Your task to perform on an android device: open chrome privacy settings Image 0: 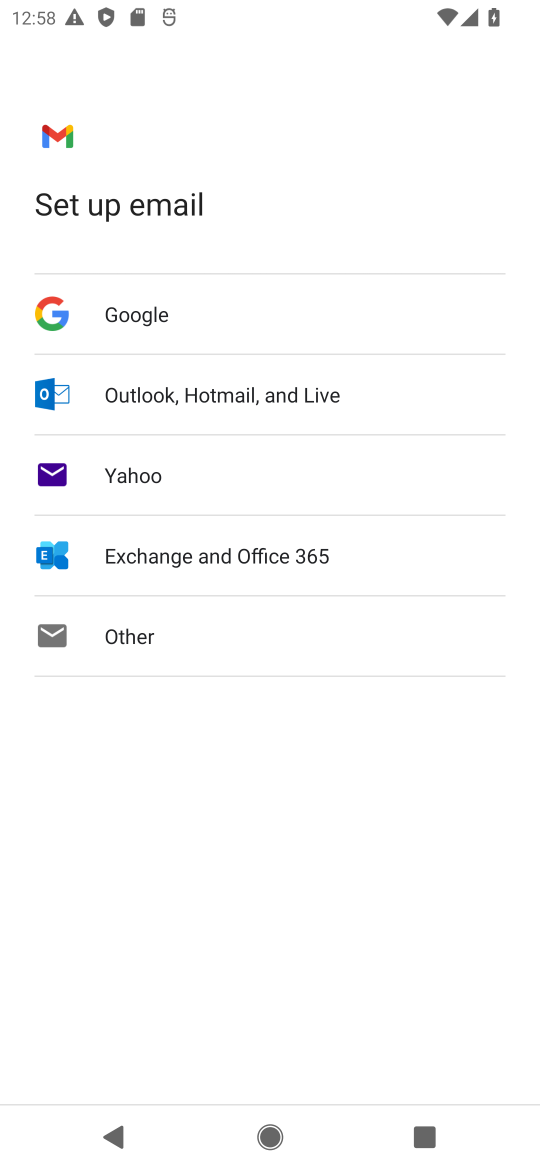
Step 0: press back button
Your task to perform on an android device: open chrome privacy settings Image 1: 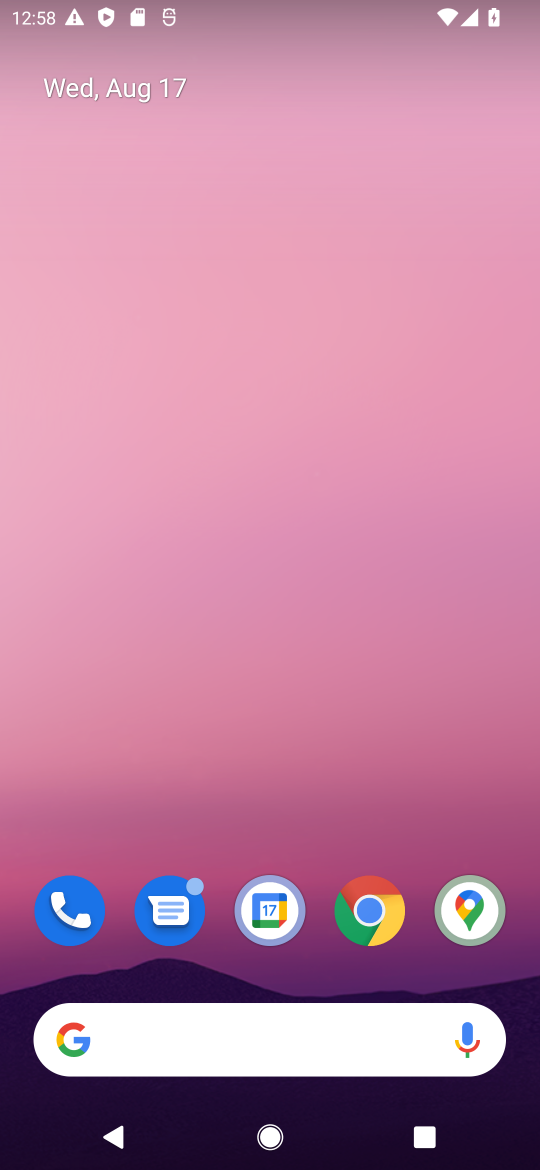
Step 1: click (374, 915)
Your task to perform on an android device: open chrome privacy settings Image 2: 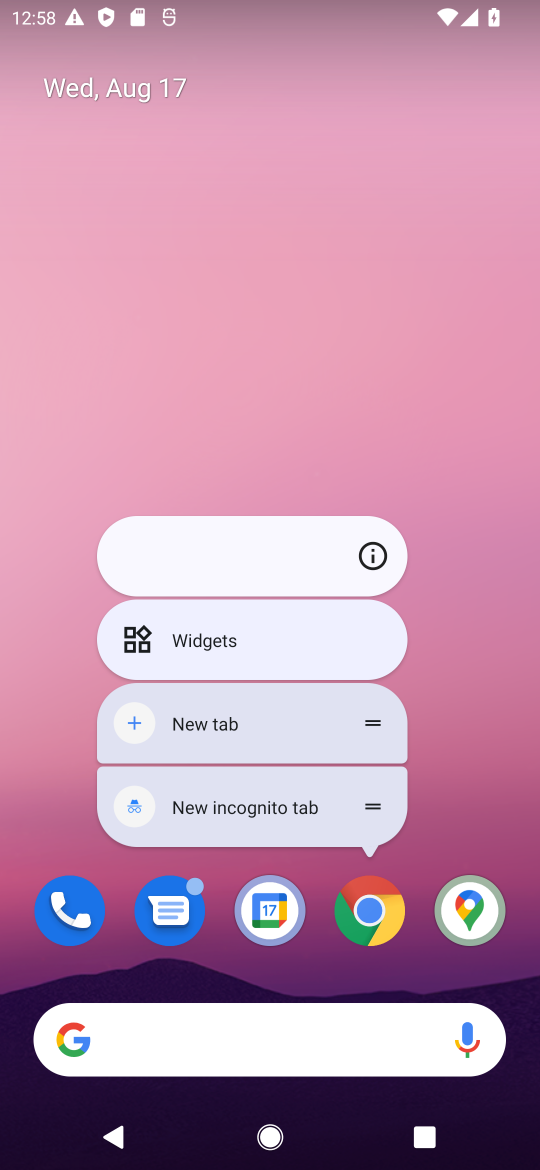
Step 2: click (374, 915)
Your task to perform on an android device: open chrome privacy settings Image 3: 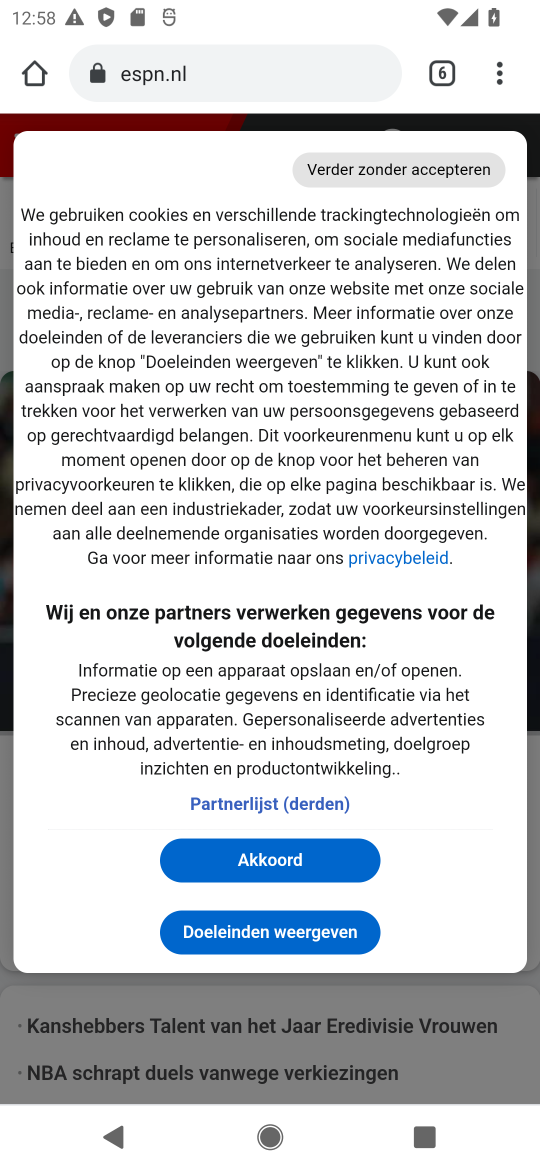
Step 3: drag from (495, 59) to (294, 915)
Your task to perform on an android device: open chrome privacy settings Image 4: 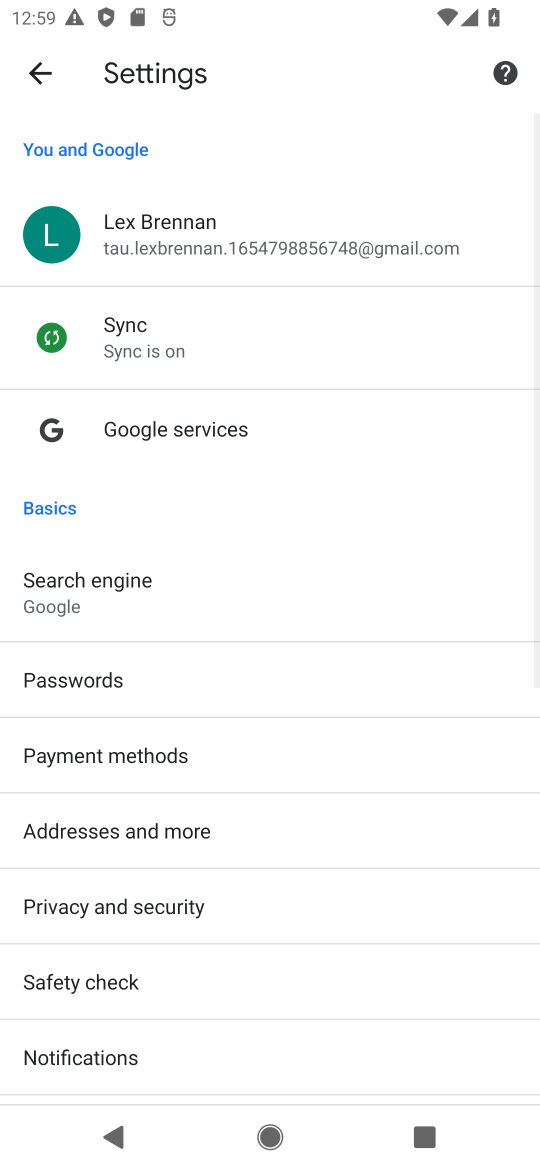
Step 4: drag from (250, 1006) to (279, 202)
Your task to perform on an android device: open chrome privacy settings Image 5: 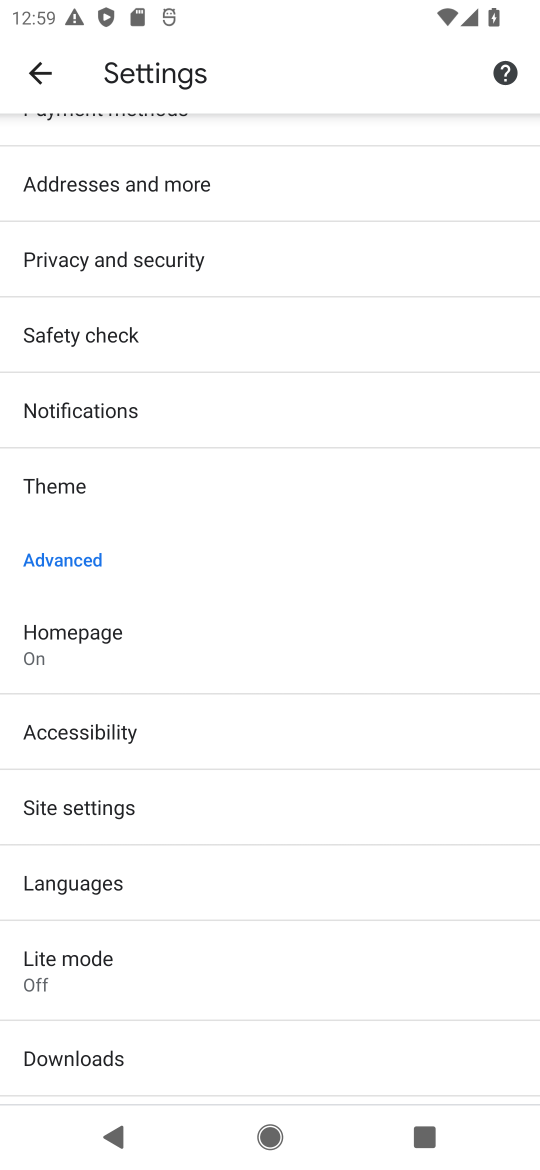
Step 5: drag from (306, 303) to (300, 683)
Your task to perform on an android device: open chrome privacy settings Image 6: 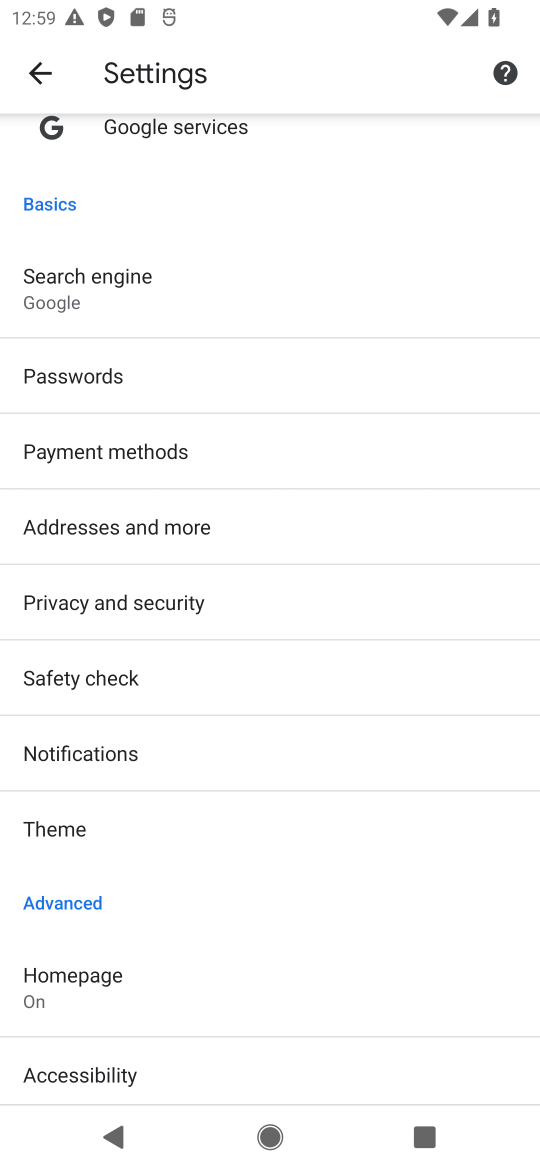
Step 6: click (111, 592)
Your task to perform on an android device: open chrome privacy settings Image 7: 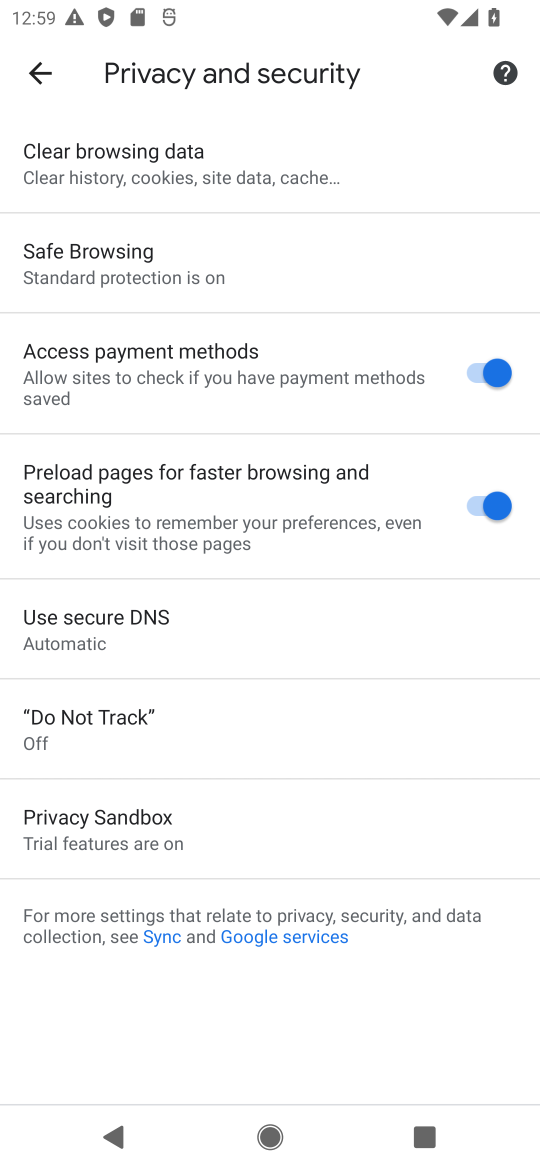
Step 7: task complete